Your task to perform on an android device: Open the stopwatch Image 0: 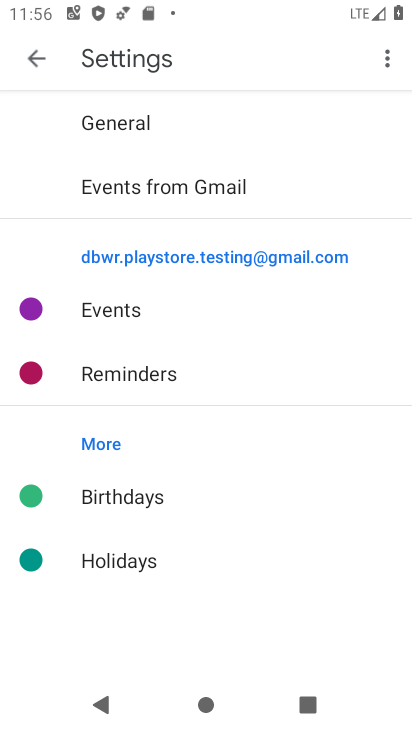
Step 0: press home button
Your task to perform on an android device: Open the stopwatch Image 1: 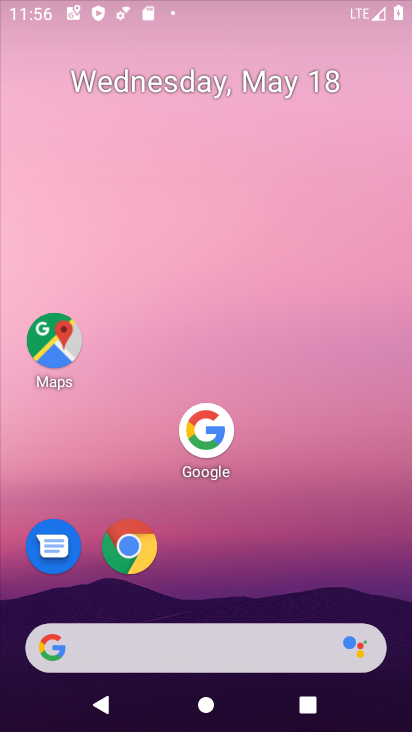
Step 1: drag from (236, 546) to (231, 30)
Your task to perform on an android device: Open the stopwatch Image 2: 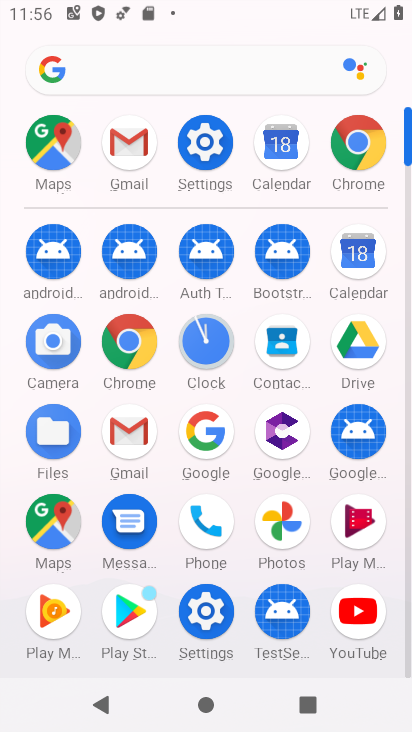
Step 2: click (222, 337)
Your task to perform on an android device: Open the stopwatch Image 3: 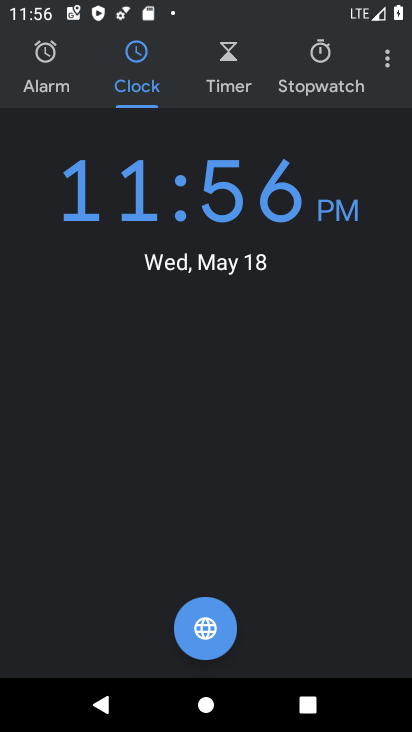
Step 3: click (317, 55)
Your task to perform on an android device: Open the stopwatch Image 4: 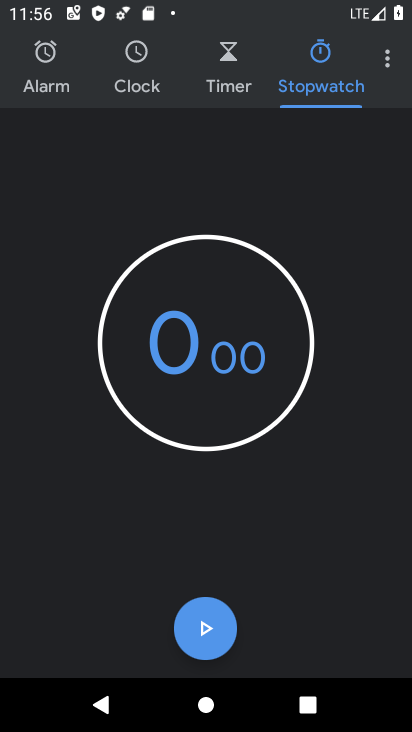
Step 4: click (208, 629)
Your task to perform on an android device: Open the stopwatch Image 5: 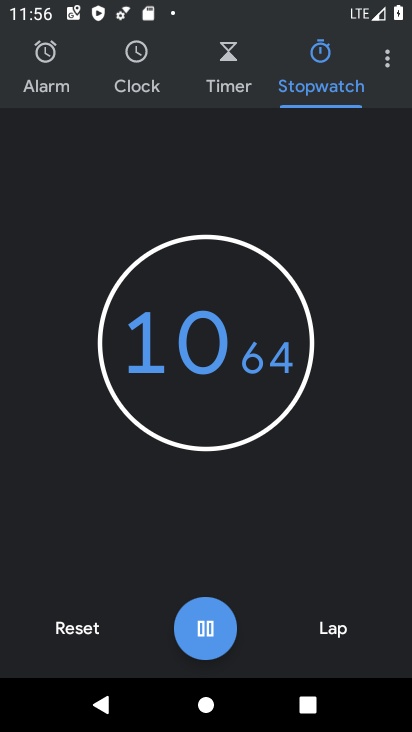
Step 5: task complete